Your task to perform on an android device: Open settings on Google Maps Image 0: 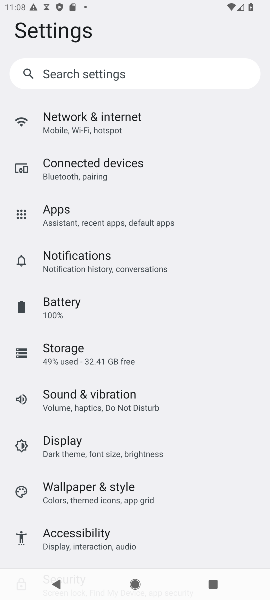
Step 0: press back button
Your task to perform on an android device: Open settings on Google Maps Image 1: 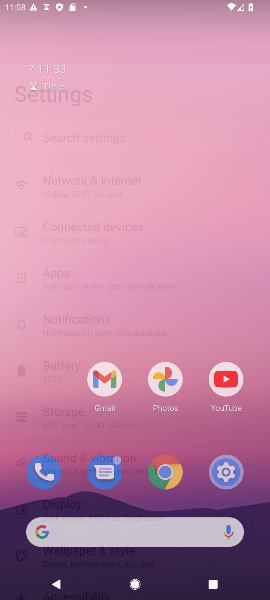
Step 1: press home button
Your task to perform on an android device: Open settings on Google Maps Image 2: 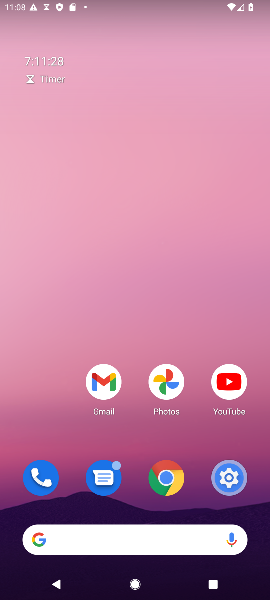
Step 2: drag from (204, 433) to (156, 101)
Your task to perform on an android device: Open settings on Google Maps Image 3: 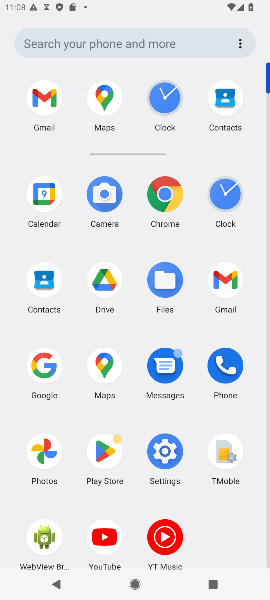
Step 3: click (107, 378)
Your task to perform on an android device: Open settings on Google Maps Image 4: 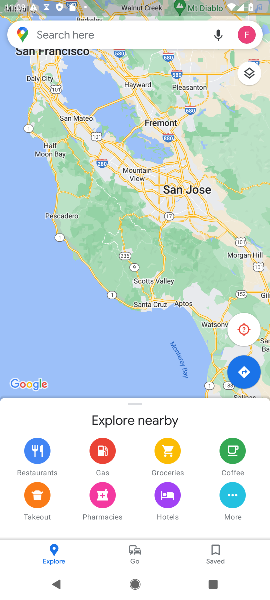
Step 4: click (249, 27)
Your task to perform on an android device: Open settings on Google Maps Image 5: 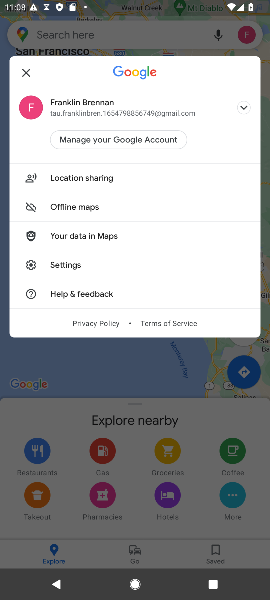
Step 5: click (103, 267)
Your task to perform on an android device: Open settings on Google Maps Image 6: 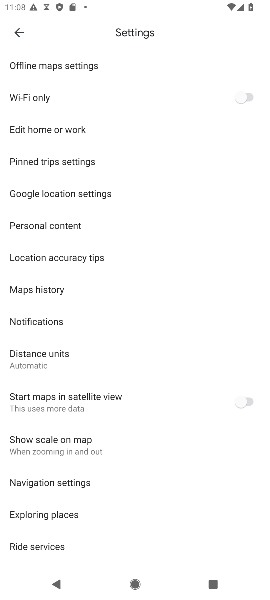
Step 6: task complete